Your task to perform on an android device: change timer sound Image 0: 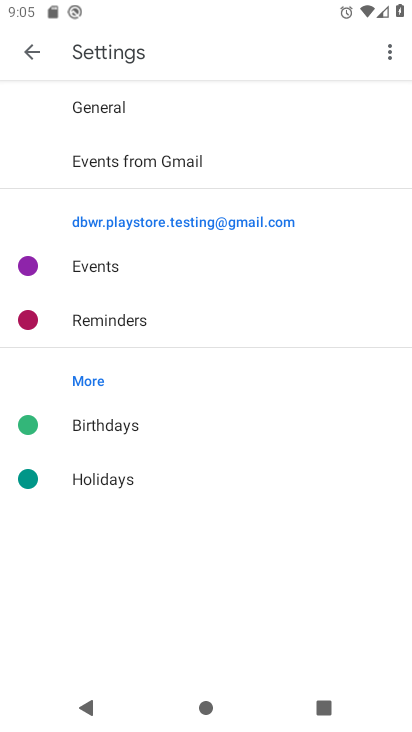
Step 0: press home button
Your task to perform on an android device: change timer sound Image 1: 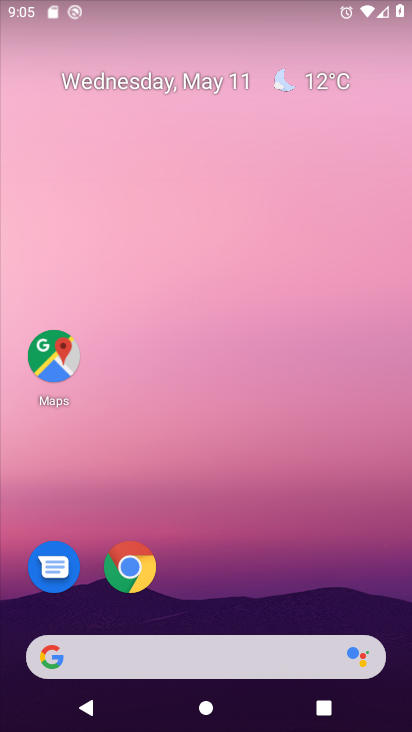
Step 1: drag from (264, 457) to (215, 93)
Your task to perform on an android device: change timer sound Image 2: 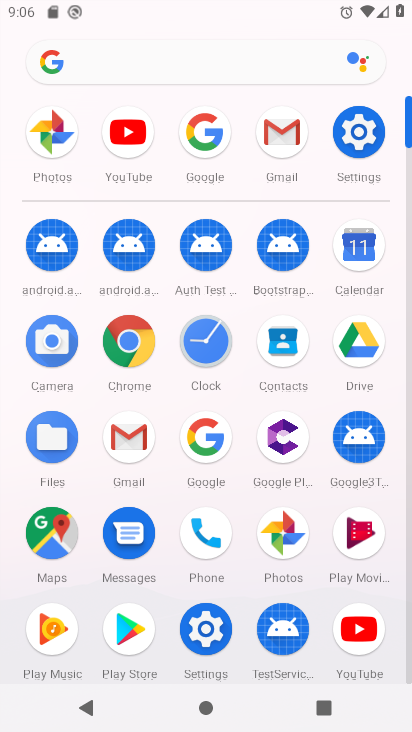
Step 2: click (207, 349)
Your task to perform on an android device: change timer sound Image 3: 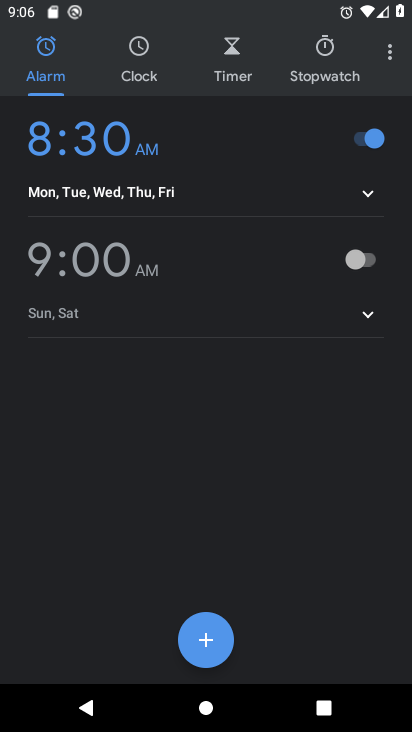
Step 3: click (385, 47)
Your task to perform on an android device: change timer sound Image 4: 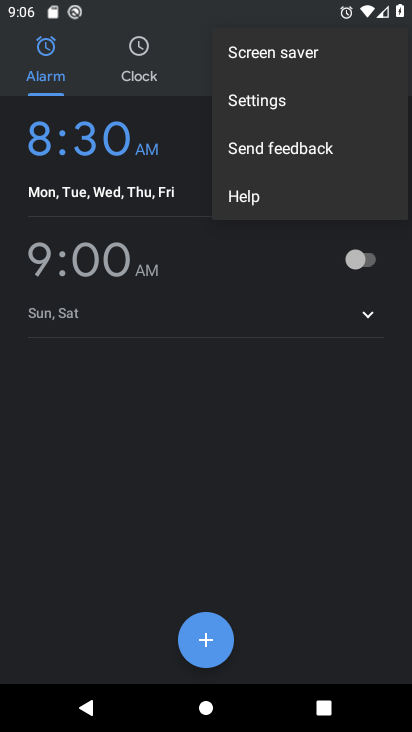
Step 4: click (290, 105)
Your task to perform on an android device: change timer sound Image 5: 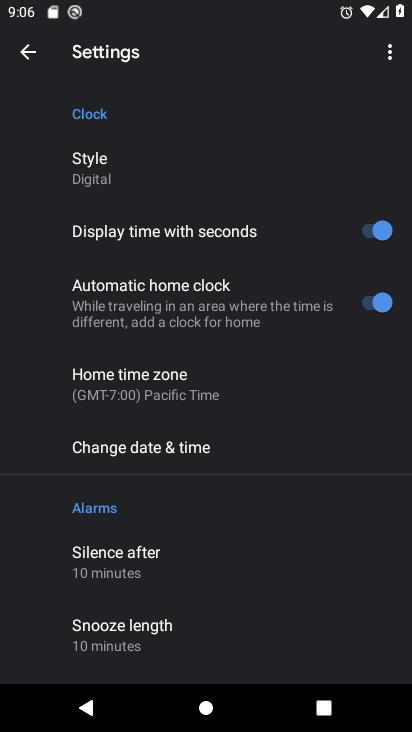
Step 5: drag from (259, 579) to (217, 230)
Your task to perform on an android device: change timer sound Image 6: 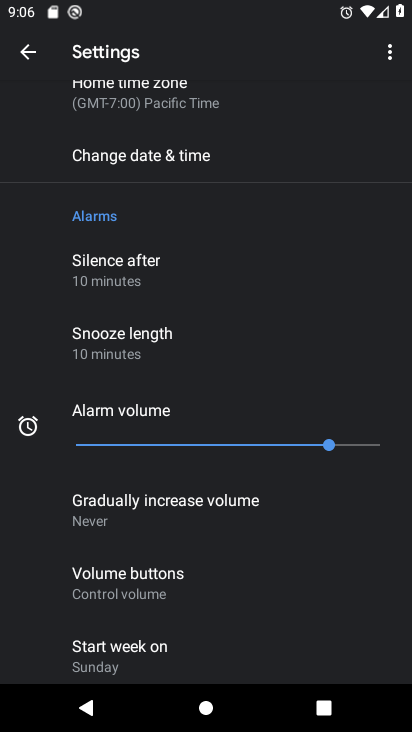
Step 6: drag from (199, 601) to (209, 338)
Your task to perform on an android device: change timer sound Image 7: 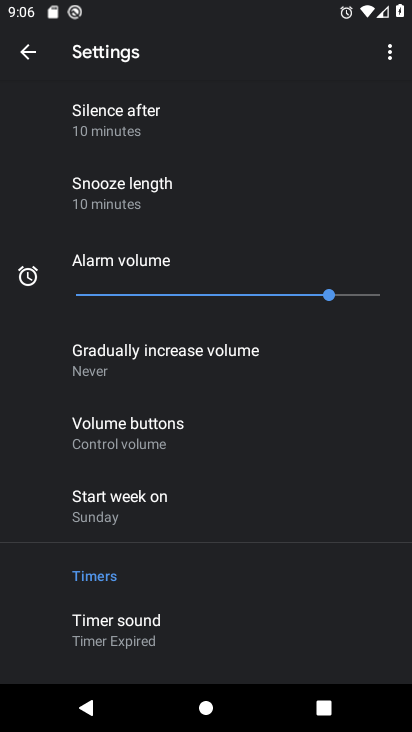
Step 7: click (146, 627)
Your task to perform on an android device: change timer sound Image 8: 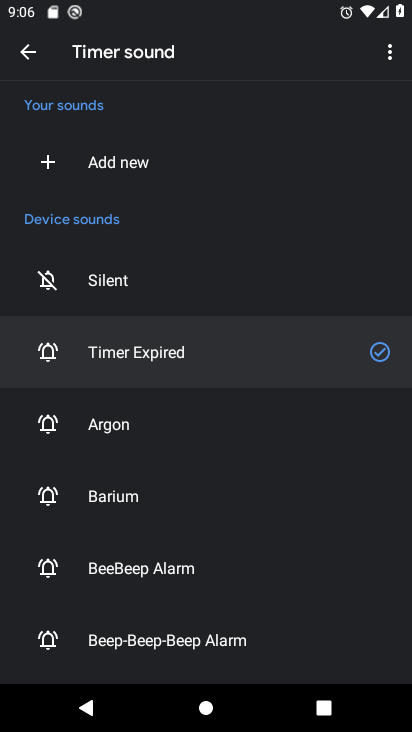
Step 8: click (282, 444)
Your task to perform on an android device: change timer sound Image 9: 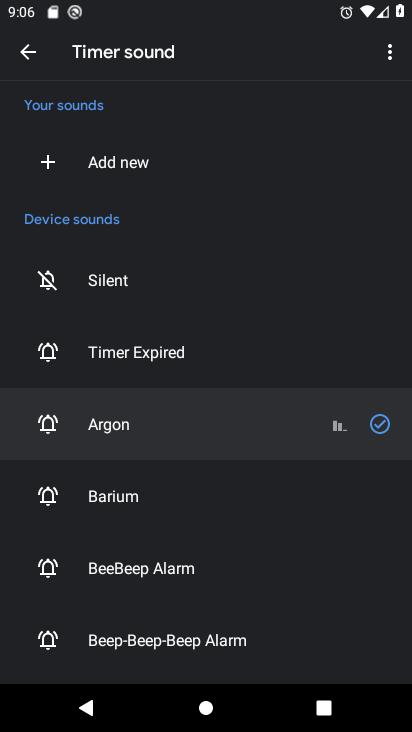
Step 9: task complete